Your task to perform on an android device: Open network settings Image 0: 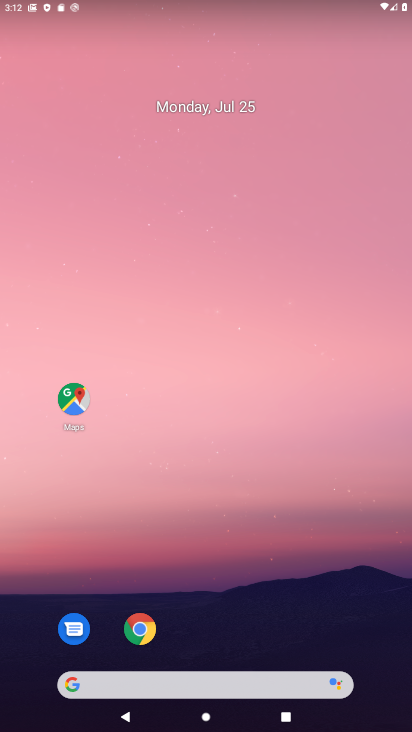
Step 0: drag from (297, 661) to (367, 0)
Your task to perform on an android device: Open network settings Image 1: 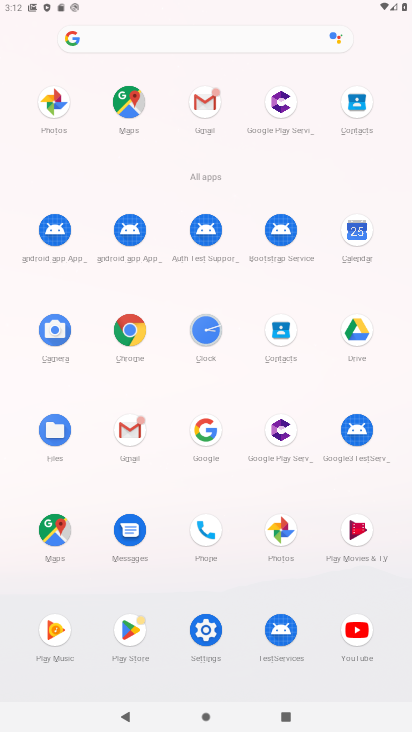
Step 1: click (205, 631)
Your task to perform on an android device: Open network settings Image 2: 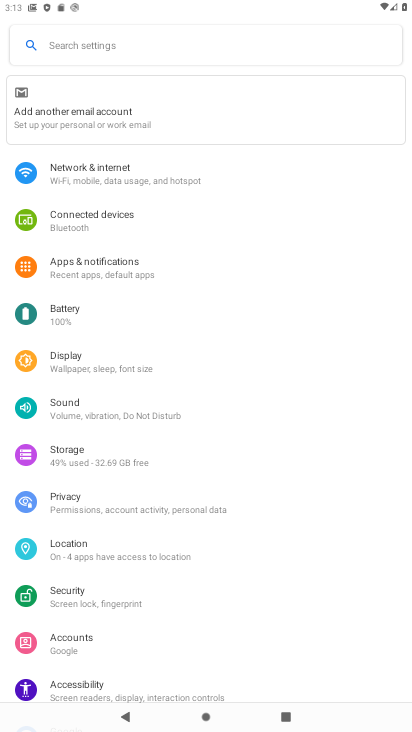
Step 2: click (108, 176)
Your task to perform on an android device: Open network settings Image 3: 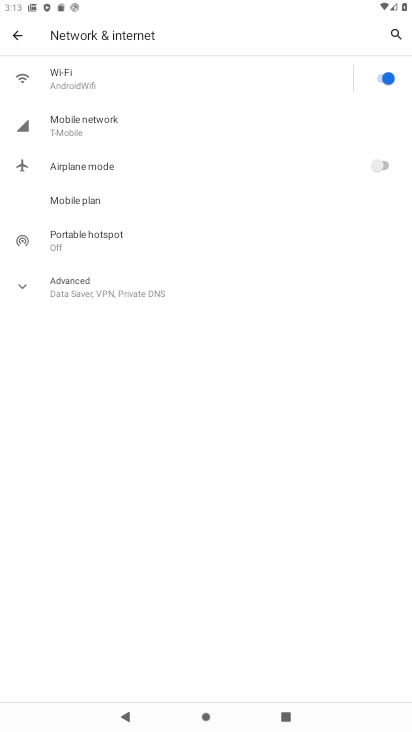
Step 3: task complete